Your task to perform on an android device: turn on bluetooth scan Image 0: 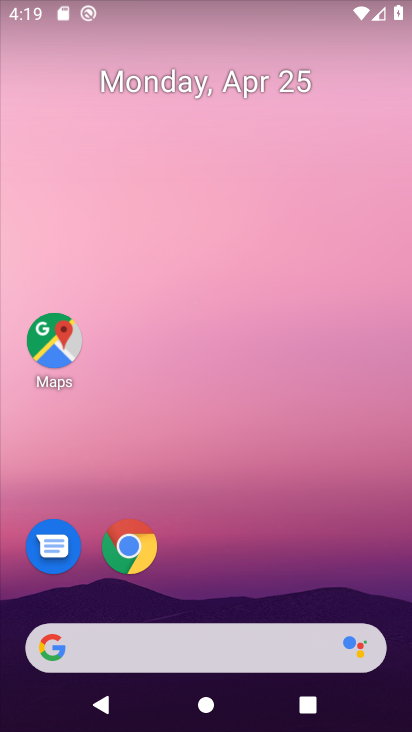
Step 0: drag from (318, 524) to (314, 13)
Your task to perform on an android device: turn on bluetooth scan Image 1: 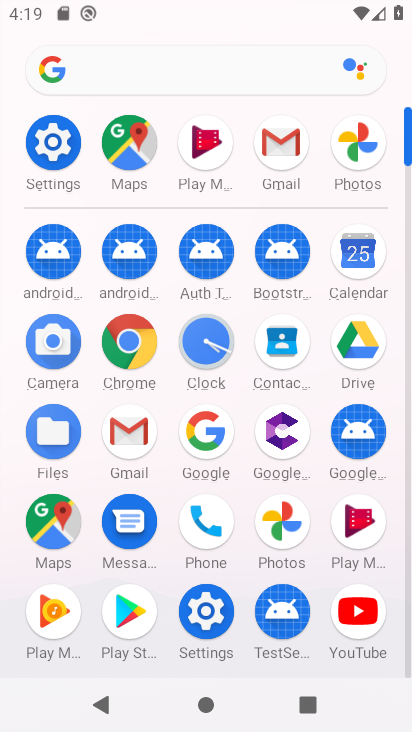
Step 1: click (45, 144)
Your task to perform on an android device: turn on bluetooth scan Image 2: 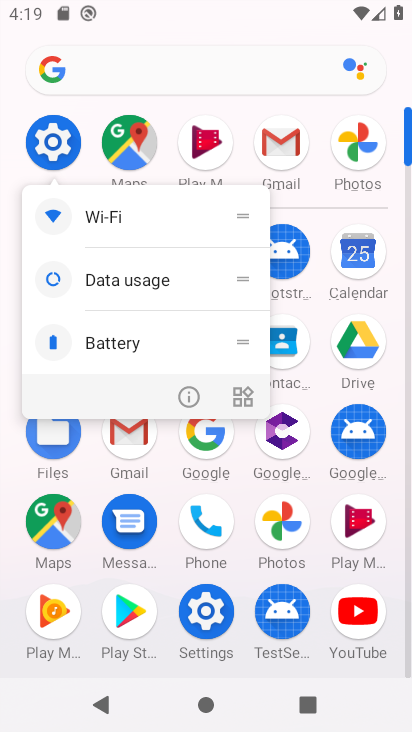
Step 2: click (47, 144)
Your task to perform on an android device: turn on bluetooth scan Image 3: 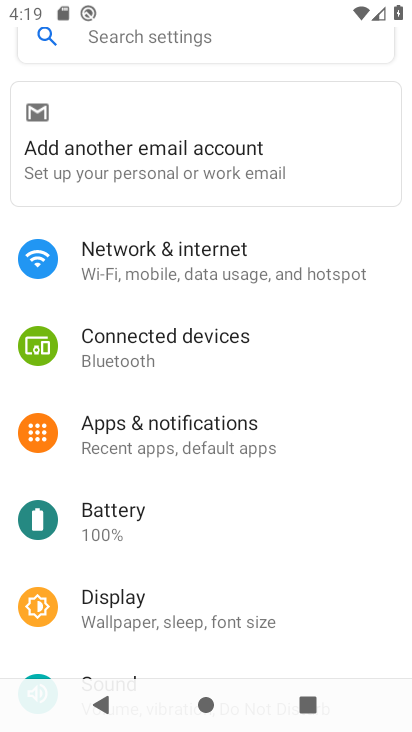
Step 3: drag from (206, 663) to (260, 295)
Your task to perform on an android device: turn on bluetooth scan Image 4: 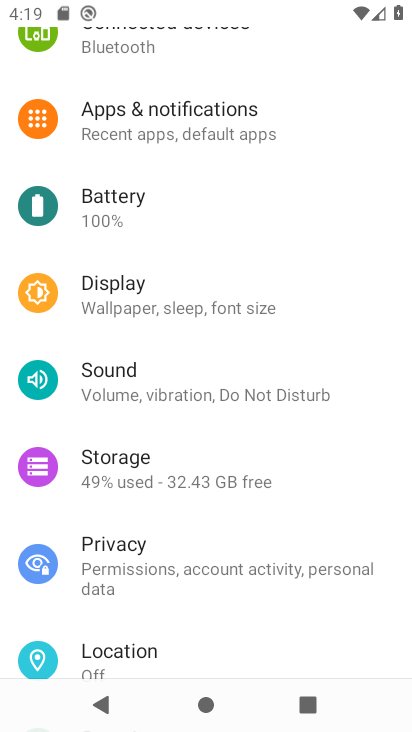
Step 4: drag from (255, 633) to (316, 418)
Your task to perform on an android device: turn on bluetooth scan Image 5: 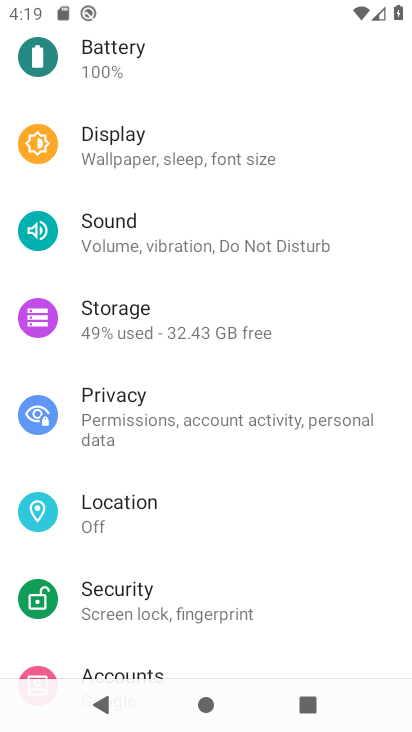
Step 5: click (258, 517)
Your task to perform on an android device: turn on bluetooth scan Image 6: 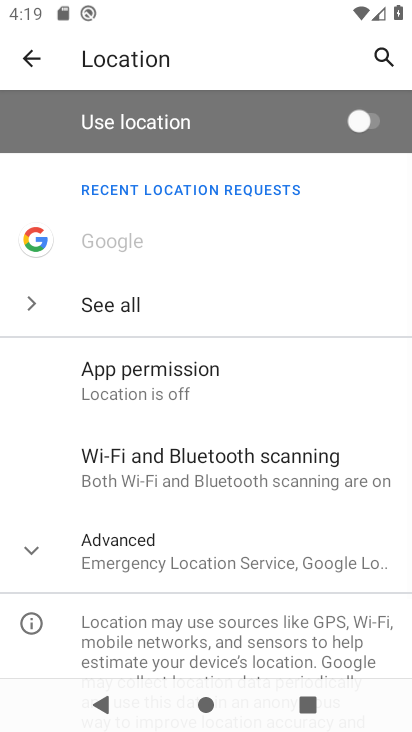
Step 6: click (251, 489)
Your task to perform on an android device: turn on bluetooth scan Image 7: 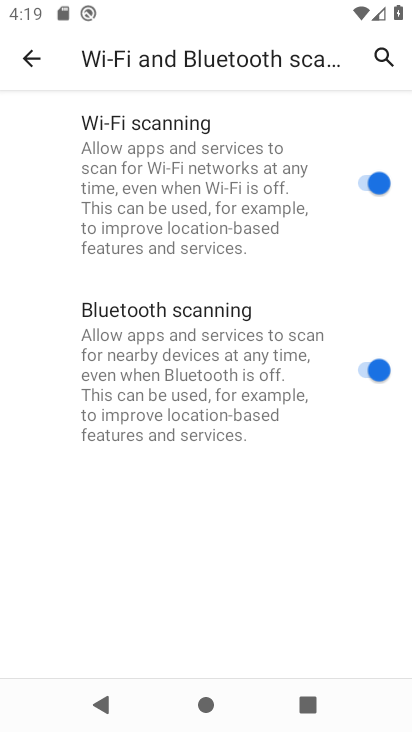
Step 7: task complete